Your task to perform on an android device: set the timer Image 0: 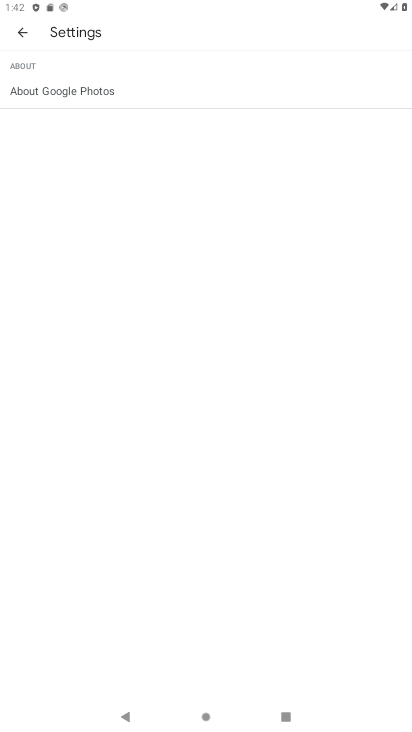
Step 0: press home button
Your task to perform on an android device: set the timer Image 1: 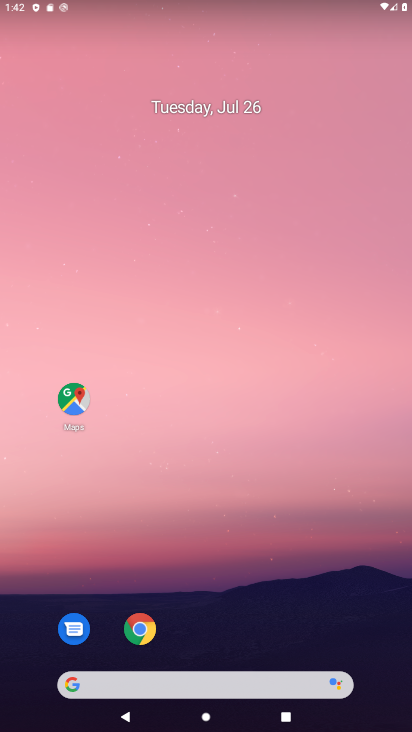
Step 1: drag from (292, 609) to (298, 26)
Your task to perform on an android device: set the timer Image 2: 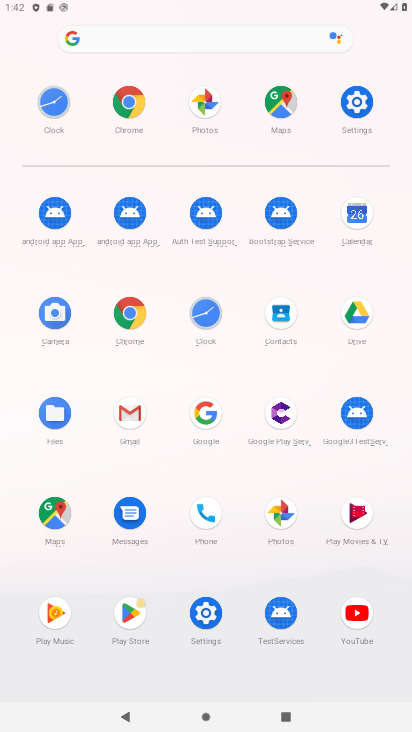
Step 2: click (208, 311)
Your task to perform on an android device: set the timer Image 3: 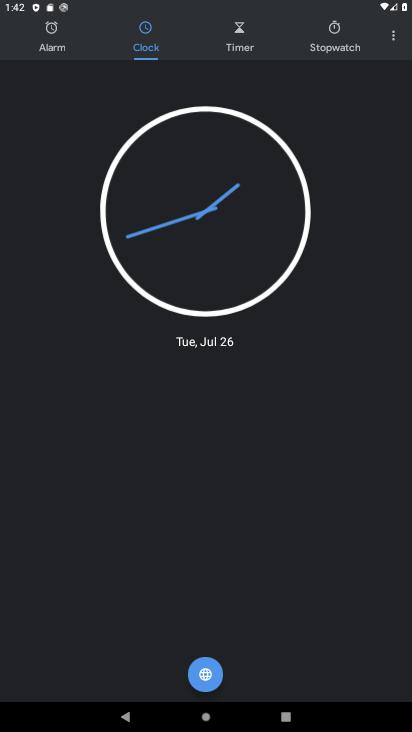
Step 3: click (241, 40)
Your task to perform on an android device: set the timer Image 4: 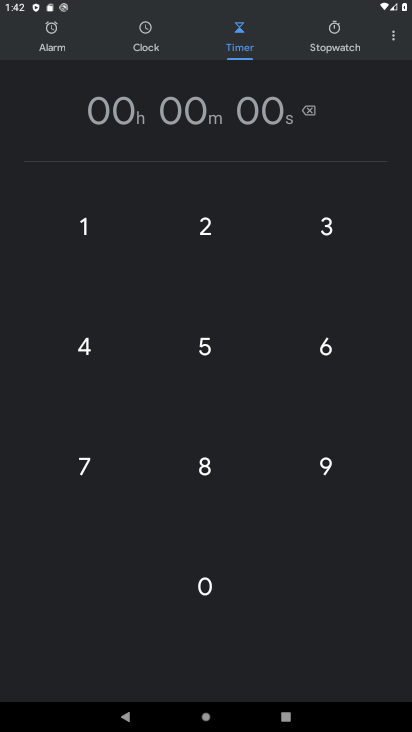
Step 4: click (212, 355)
Your task to perform on an android device: set the timer Image 5: 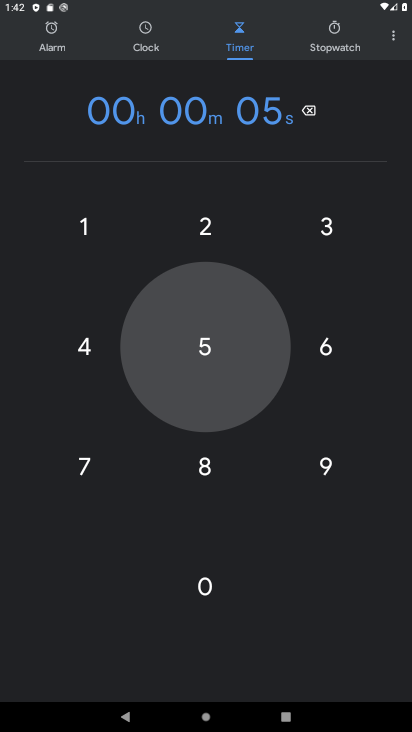
Step 5: click (336, 363)
Your task to perform on an android device: set the timer Image 6: 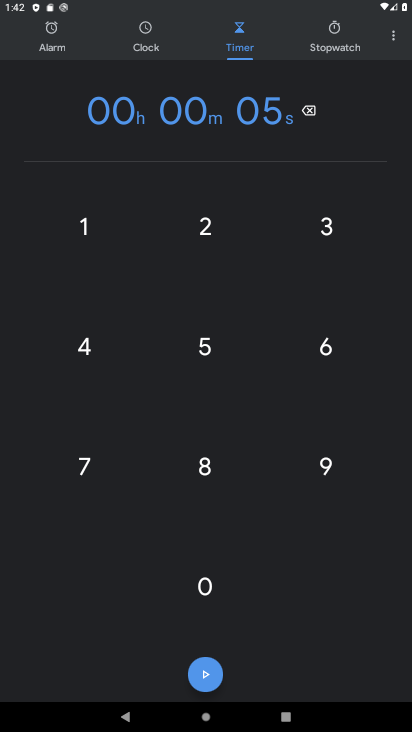
Step 6: click (215, 232)
Your task to perform on an android device: set the timer Image 7: 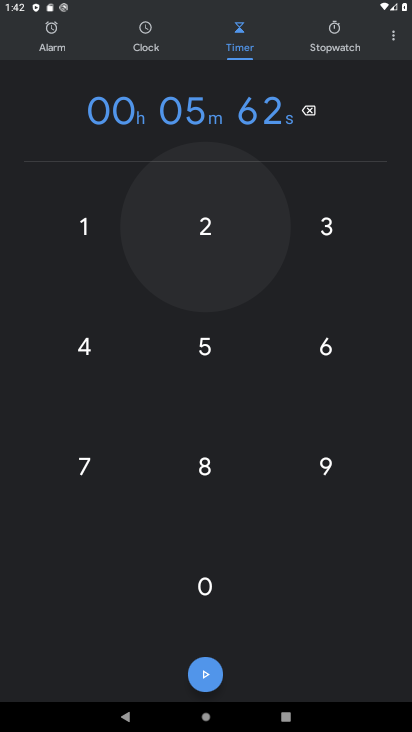
Step 7: click (323, 217)
Your task to perform on an android device: set the timer Image 8: 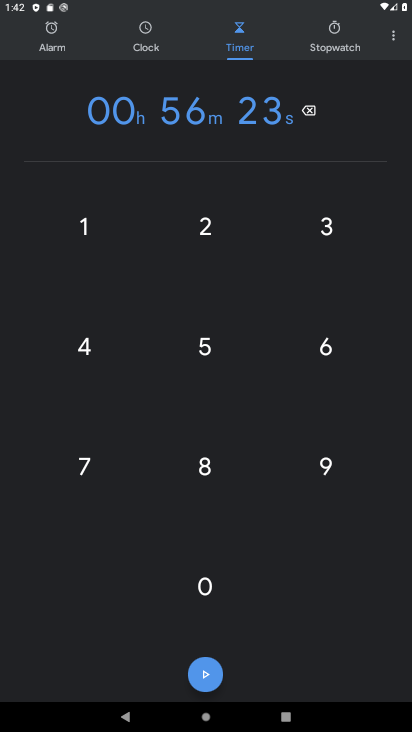
Step 8: click (81, 217)
Your task to perform on an android device: set the timer Image 9: 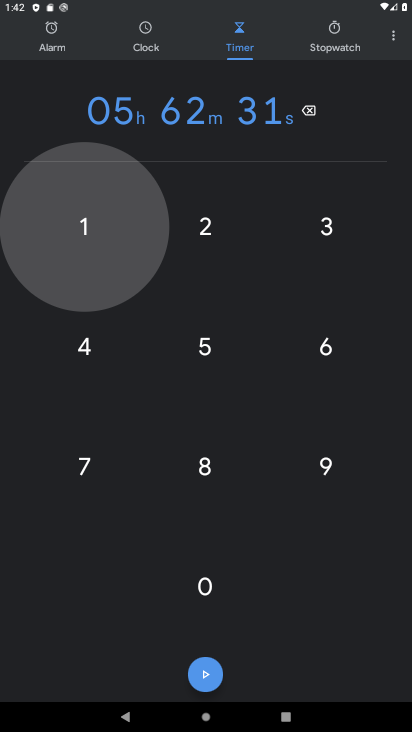
Step 9: click (87, 342)
Your task to perform on an android device: set the timer Image 10: 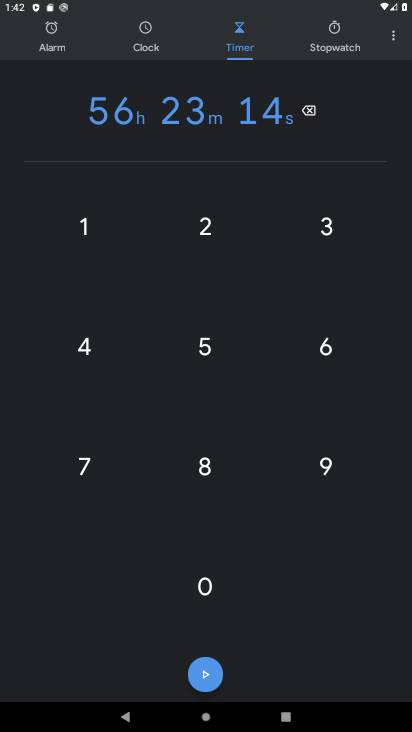
Step 10: click (210, 677)
Your task to perform on an android device: set the timer Image 11: 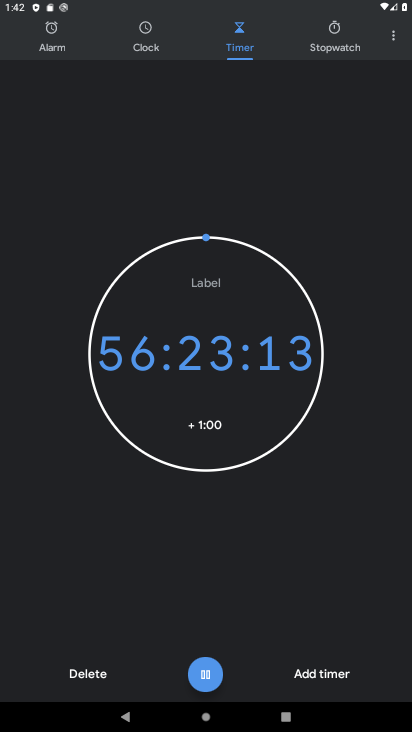
Step 11: task complete